Your task to perform on an android device: Search for vegetarian restaurants on Maps Image 0: 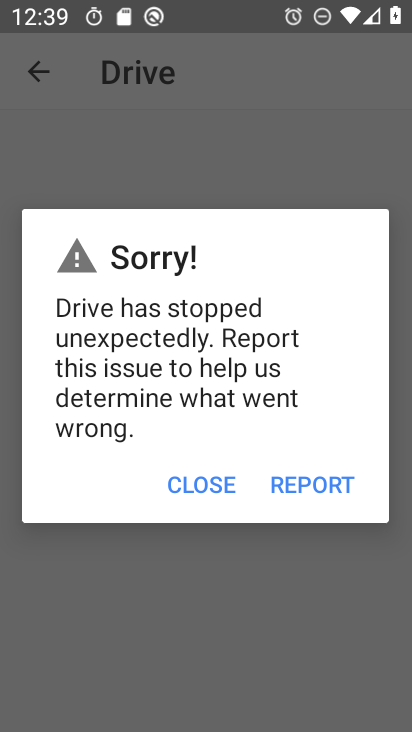
Step 0: drag from (346, 605) to (304, 111)
Your task to perform on an android device: Search for vegetarian restaurants on Maps Image 1: 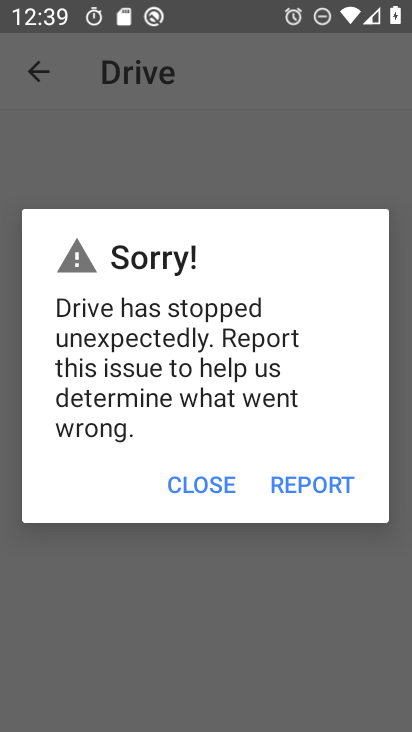
Step 1: click (264, 193)
Your task to perform on an android device: Search for vegetarian restaurants on Maps Image 2: 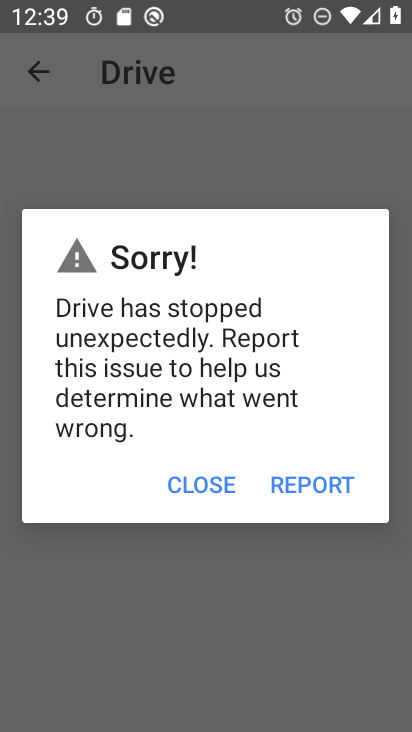
Step 2: click (204, 478)
Your task to perform on an android device: Search for vegetarian restaurants on Maps Image 3: 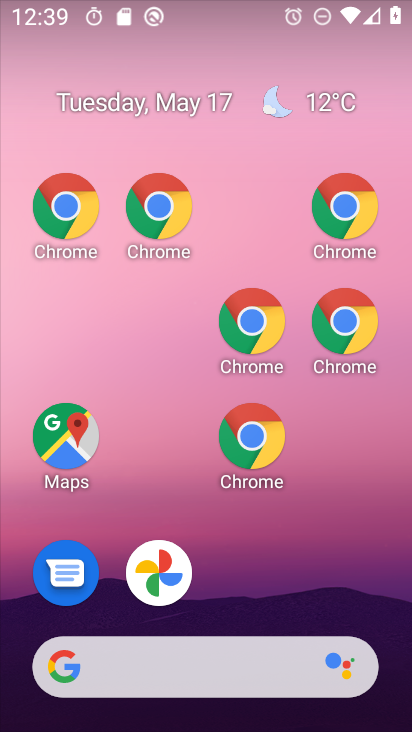
Step 3: drag from (335, 697) to (262, 130)
Your task to perform on an android device: Search for vegetarian restaurants on Maps Image 4: 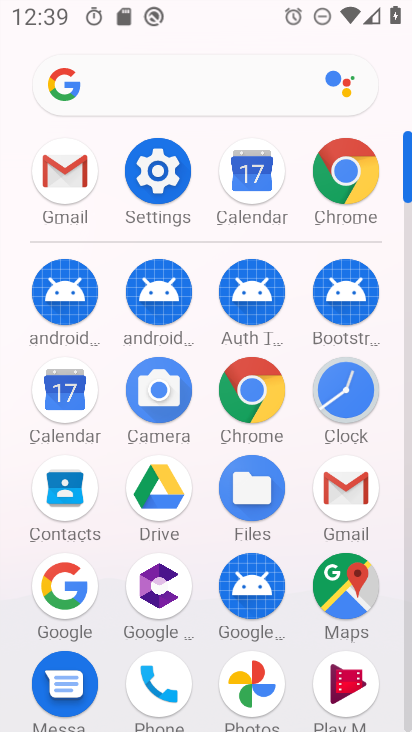
Step 4: click (338, 566)
Your task to perform on an android device: Search for vegetarian restaurants on Maps Image 5: 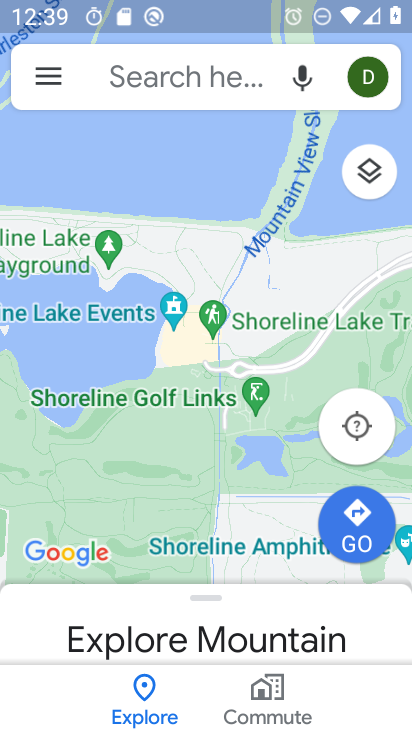
Step 5: click (121, 64)
Your task to perform on an android device: Search for vegetarian restaurants on Maps Image 6: 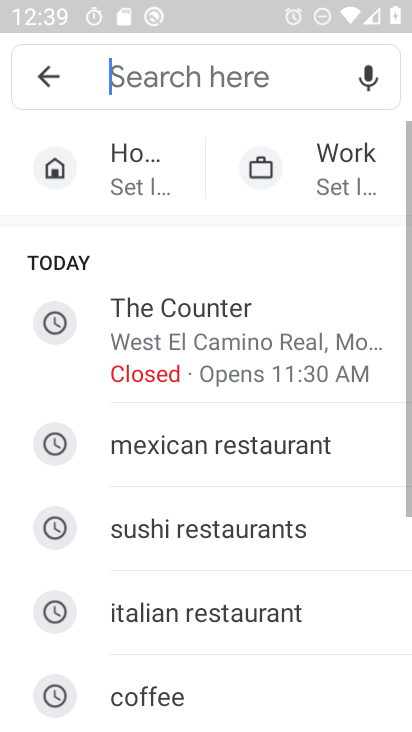
Step 6: click (132, 72)
Your task to perform on an android device: Search for vegetarian restaurants on Maps Image 7: 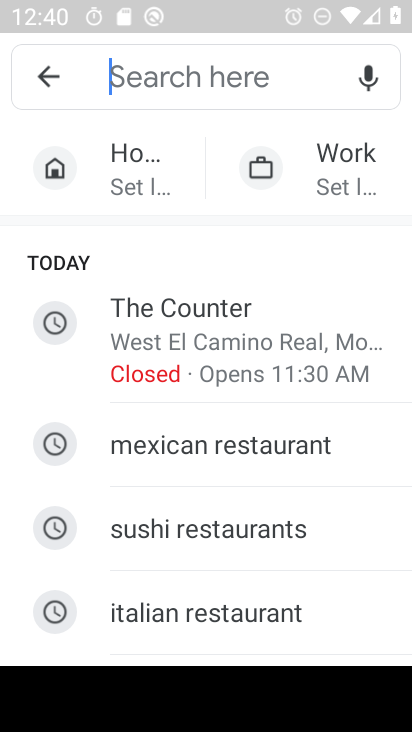
Step 7: type "vegetarian restaurants"
Your task to perform on an android device: Search for vegetarian restaurants on Maps Image 8: 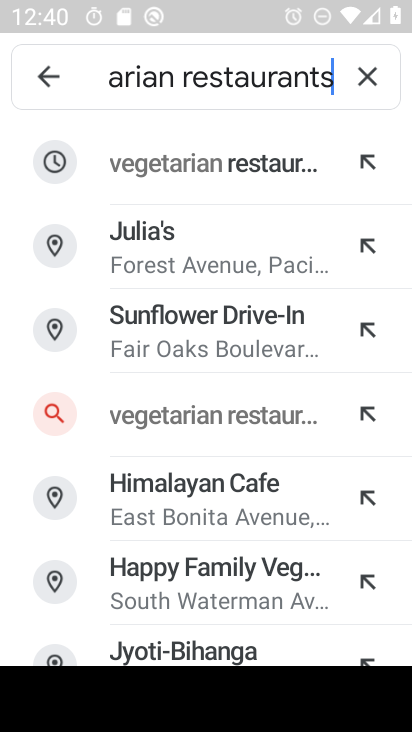
Step 8: click (237, 168)
Your task to perform on an android device: Search for vegetarian restaurants on Maps Image 9: 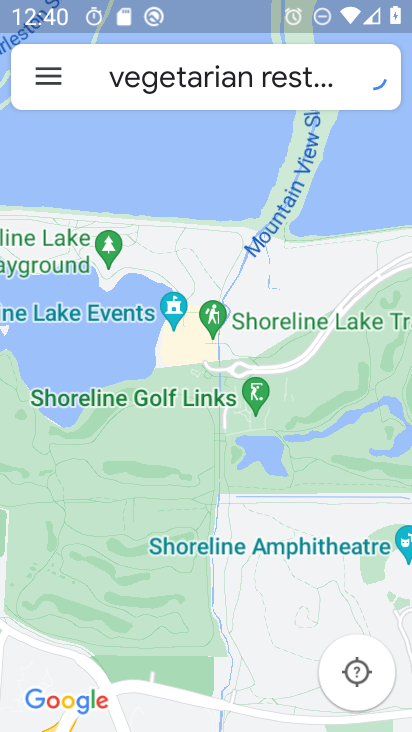
Step 9: task complete